Your task to perform on an android device: Open maps Image 0: 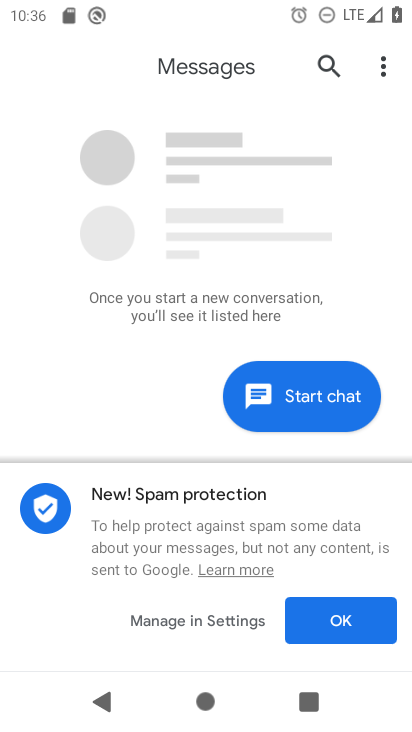
Step 0: press home button
Your task to perform on an android device: Open maps Image 1: 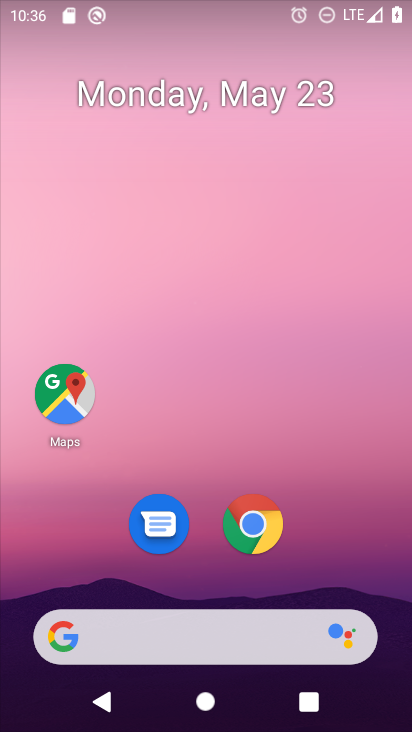
Step 1: click (62, 390)
Your task to perform on an android device: Open maps Image 2: 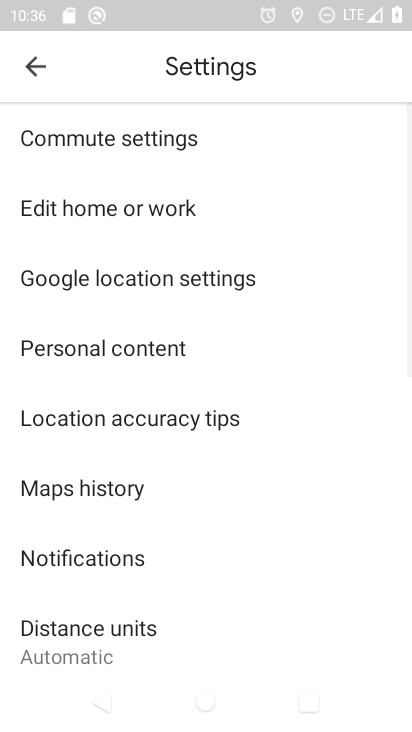
Step 2: click (32, 67)
Your task to perform on an android device: Open maps Image 3: 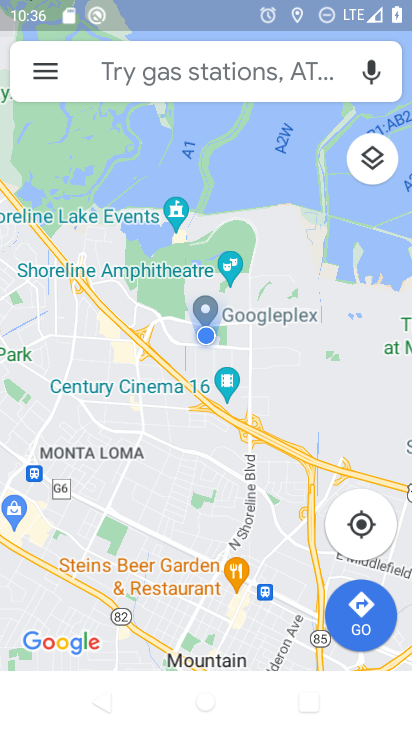
Step 3: task complete